Your task to perform on an android device: Open display settings Image 0: 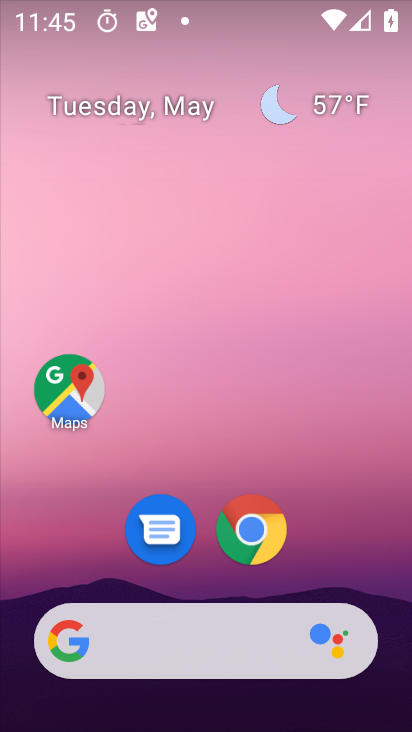
Step 0: drag from (200, 570) to (254, 270)
Your task to perform on an android device: Open display settings Image 1: 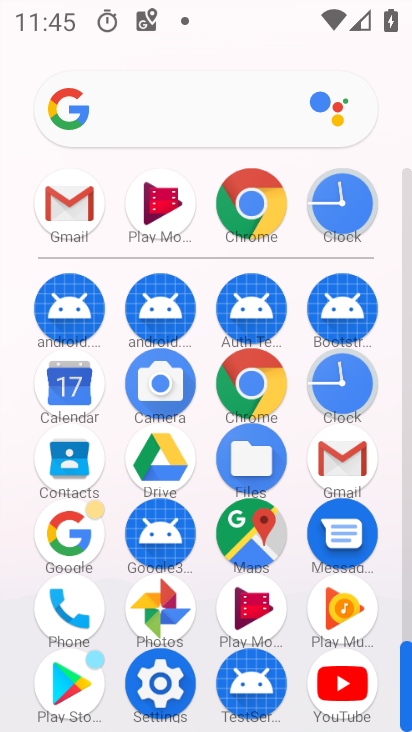
Step 1: click (157, 665)
Your task to perform on an android device: Open display settings Image 2: 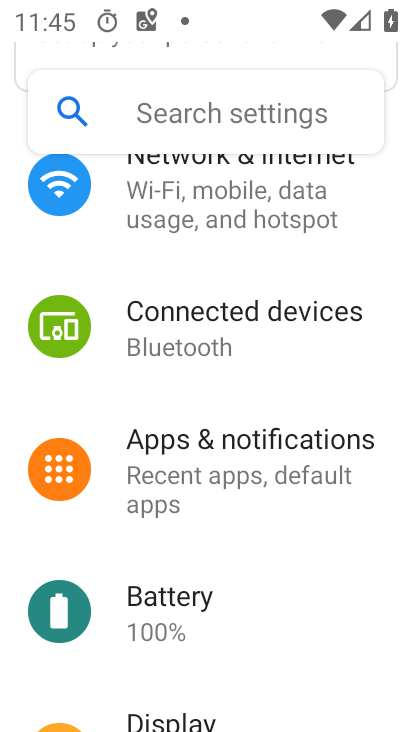
Step 2: click (131, 721)
Your task to perform on an android device: Open display settings Image 3: 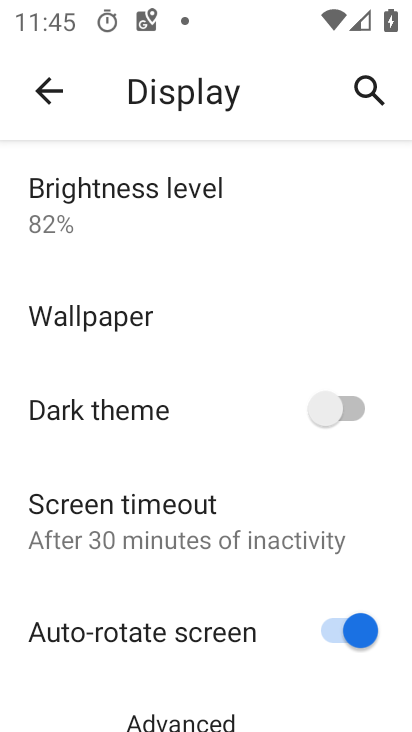
Step 3: task complete